Your task to perform on an android device: Go to settings Image 0: 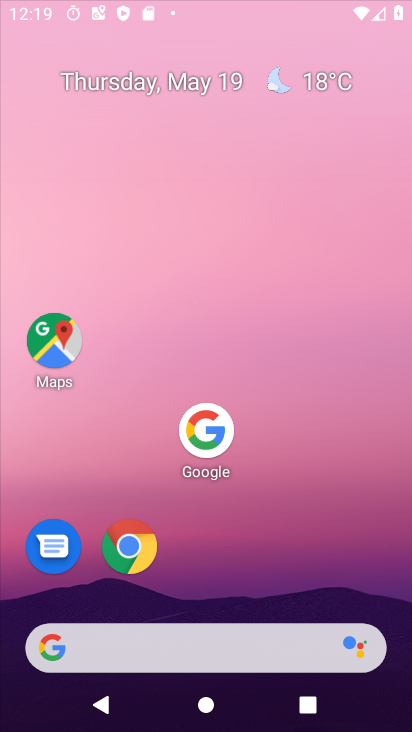
Step 0: click (239, 87)
Your task to perform on an android device: Go to settings Image 1: 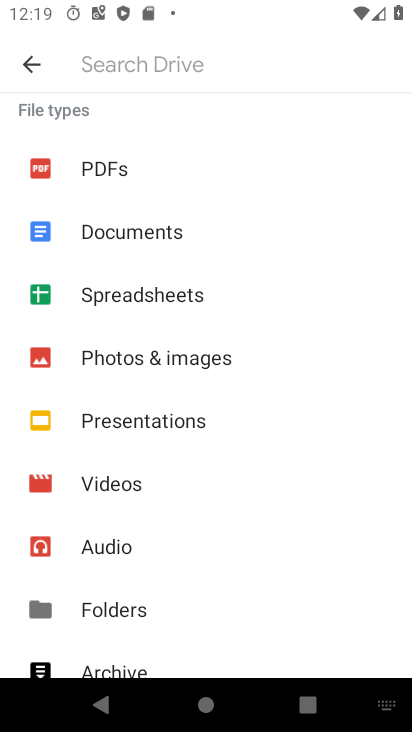
Step 1: press home button
Your task to perform on an android device: Go to settings Image 2: 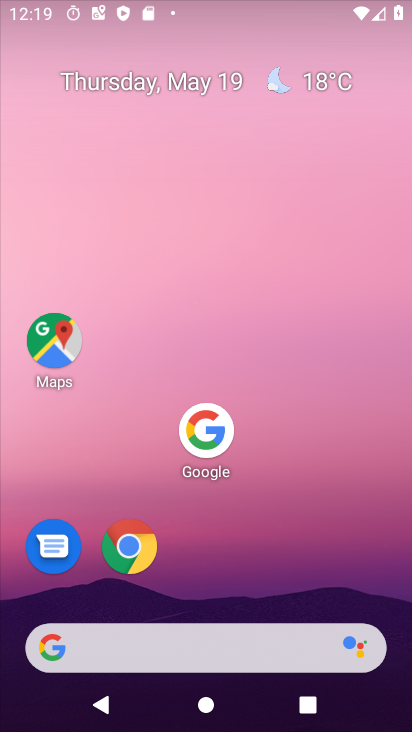
Step 2: drag from (217, 545) to (216, 70)
Your task to perform on an android device: Go to settings Image 3: 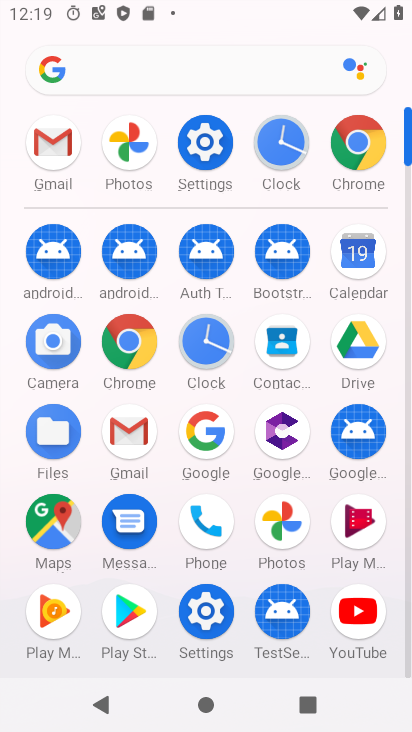
Step 3: click (211, 133)
Your task to perform on an android device: Go to settings Image 4: 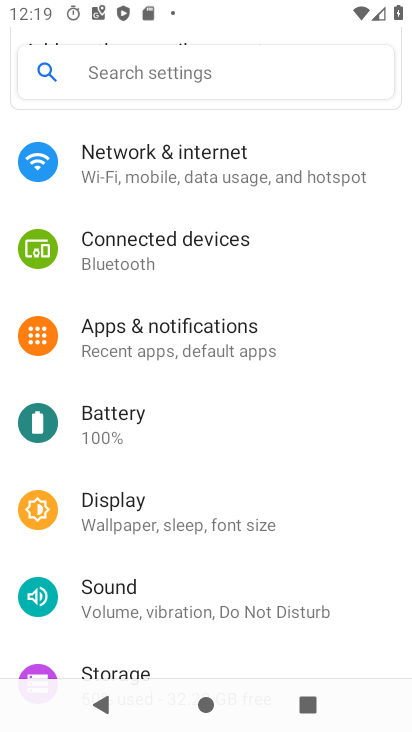
Step 4: task complete